Your task to perform on an android device: Go to location settings Image 0: 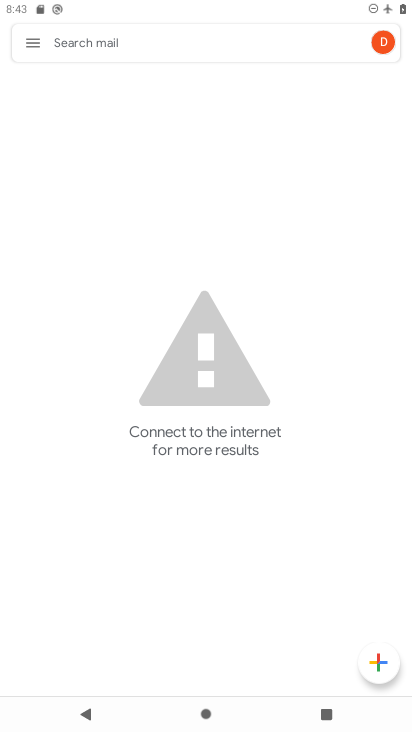
Step 0: press home button
Your task to perform on an android device: Go to location settings Image 1: 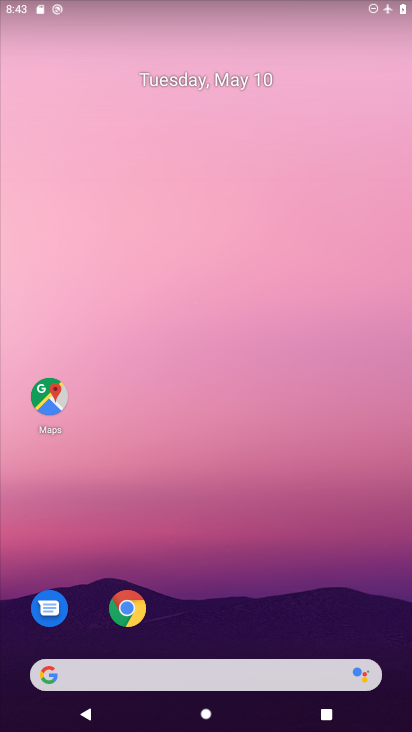
Step 1: drag from (223, 376) to (250, 178)
Your task to perform on an android device: Go to location settings Image 2: 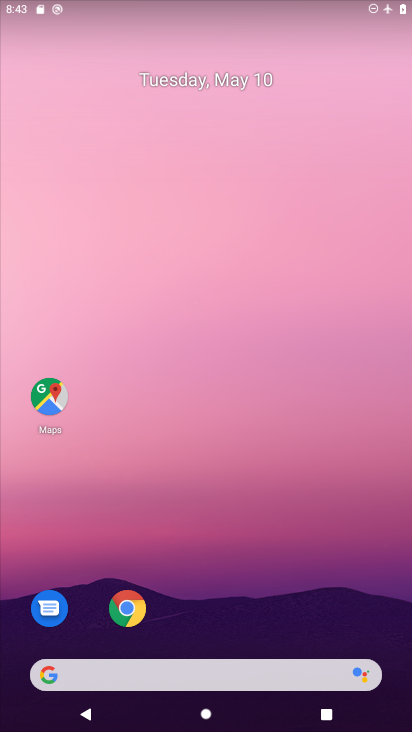
Step 2: drag from (191, 645) to (255, 136)
Your task to perform on an android device: Go to location settings Image 3: 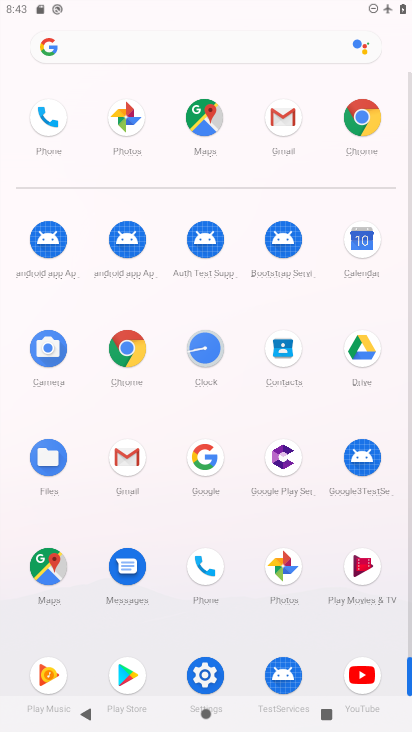
Step 3: click (196, 675)
Your task to perform on an android device: Go to location settings Image 4: 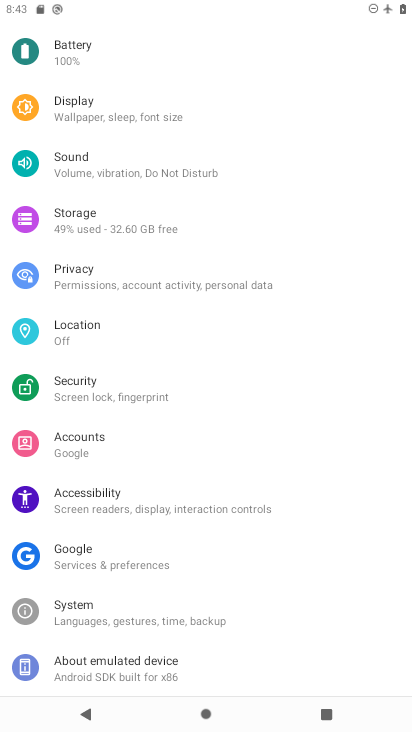
Step 4: click (95, 326)
Your task to perform on an android device: Go to location settings Image 5: 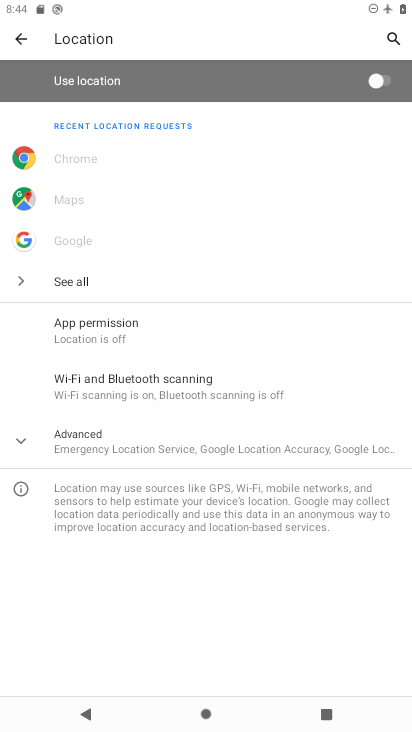
Step 5: task complete